Your task to perform on an android device: turn on bluetooth scan Image 0: 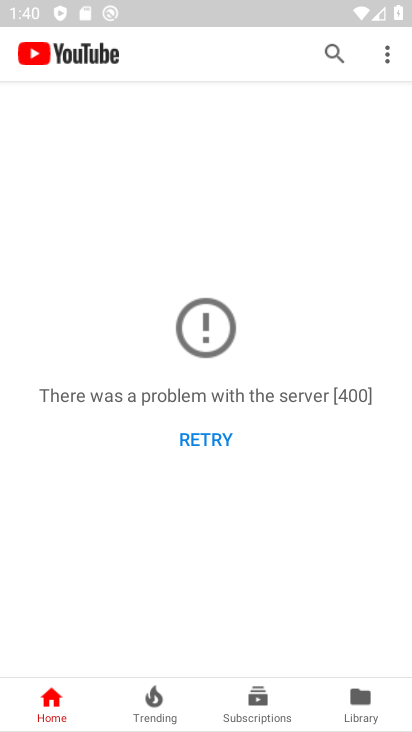
Step 0: press home button
Your task to perform on an android device: turn on bluetooth scan Image 1: 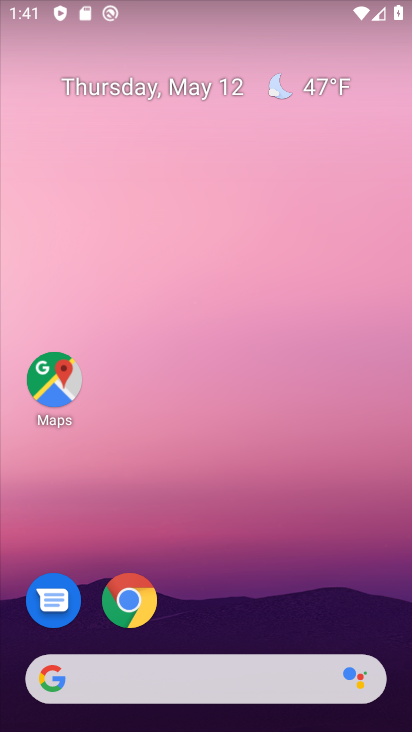
Step 1: drag from (186, 723) to (158, 142)
Your task to perform on an android device: turn on bluetooth scan Image 2: 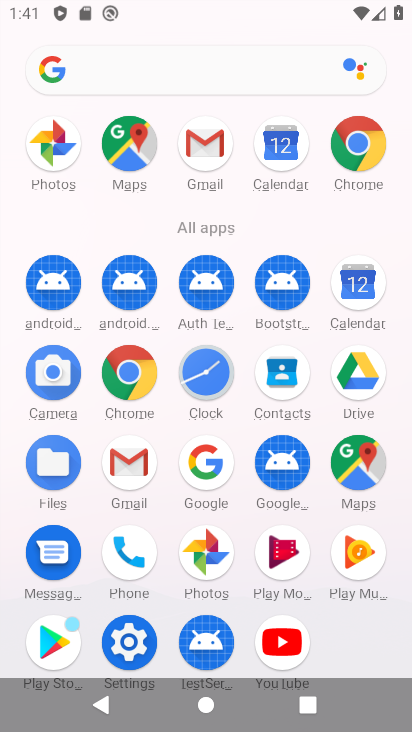
Step 2: click (131, 645)
Your task to perform on an android device: turn on bluetooth scan Image 3: 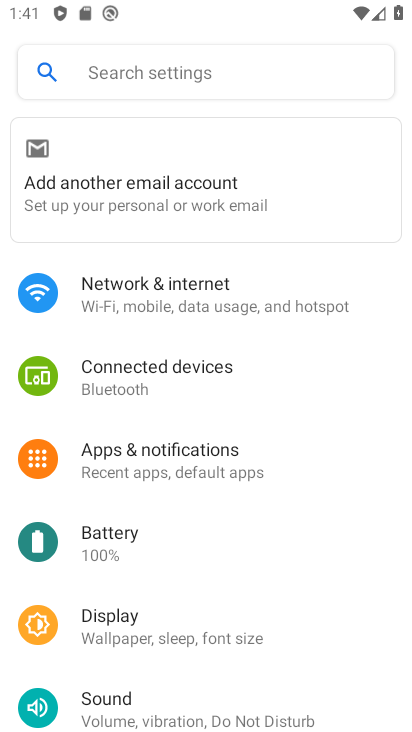
Step 3: drag from (149, 683) to (190, 229)
Your task to perform on an android device: turn on bluetooth scan Image 4: 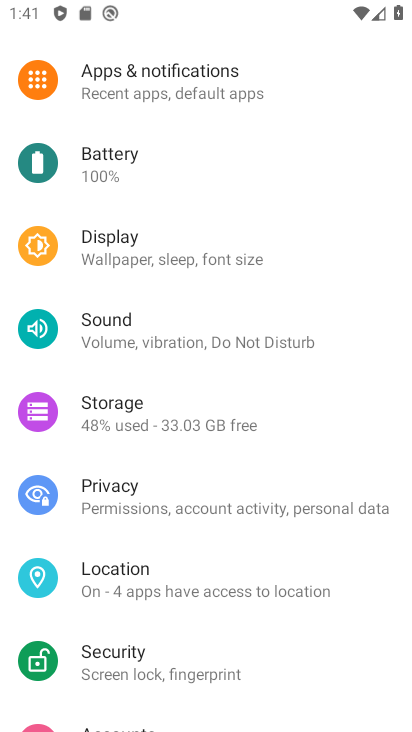
Step 4: click (138, 573)
Your task to perform on an android device: turn on bluetooth scan Image 5: 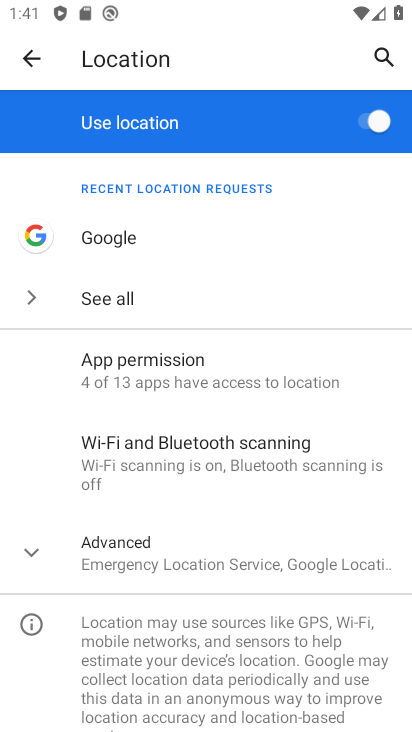
Step 5: click (170, 448)
Your task to perform on an android device: turn on bluetooth scan Image 6: 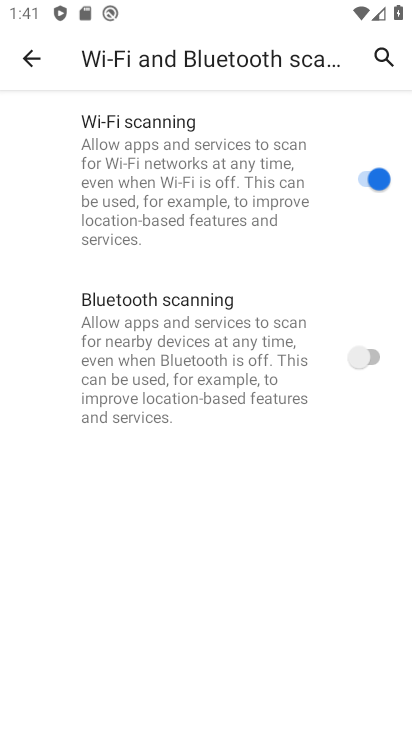
Step 6: click (370, 356)
Your task to perform on an android device: turn on bluetooth scan Image 7: 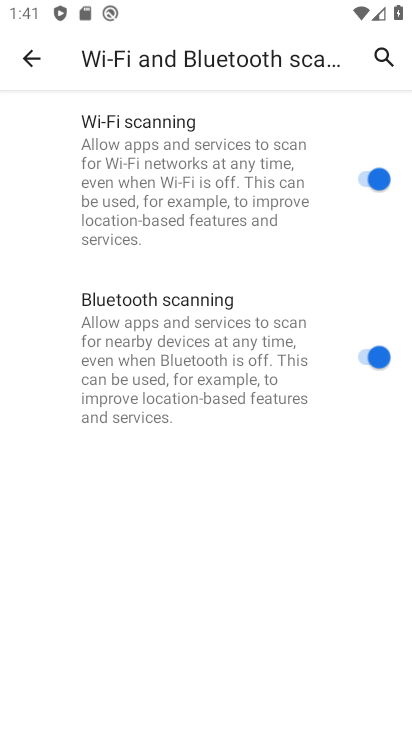
Step 7: task complete